Your task to perform on an android device: refresh tabs in the chrome app Image 0: 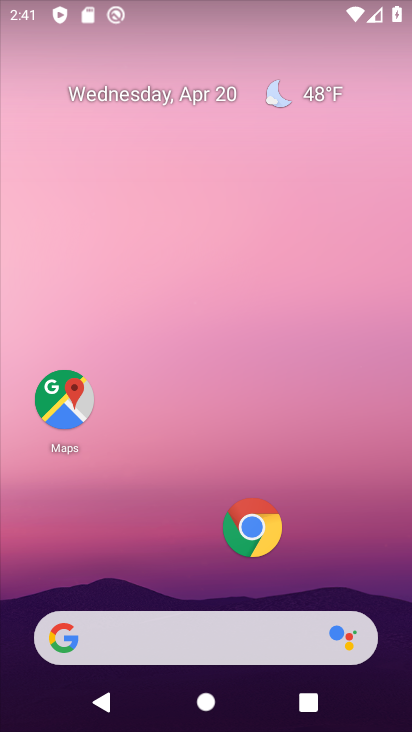
Step 0: click (251, 529)
Your task to perform on an android device: refresh tabs in the chrome app Image 1: 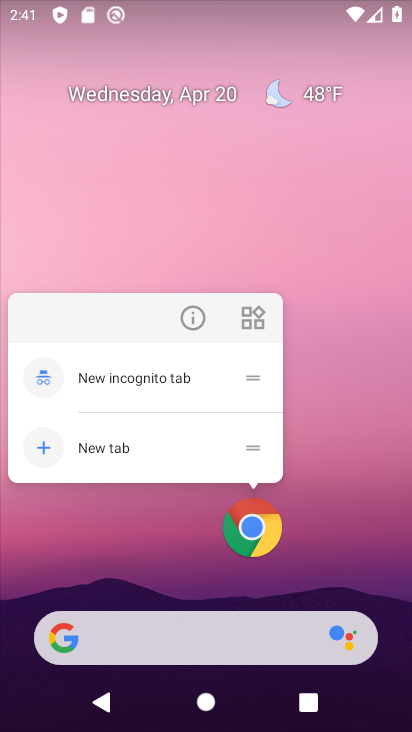
Step 1: click (110, 450)
Your task to perform on an android device: refresh tabs in the chrome app Image 2: 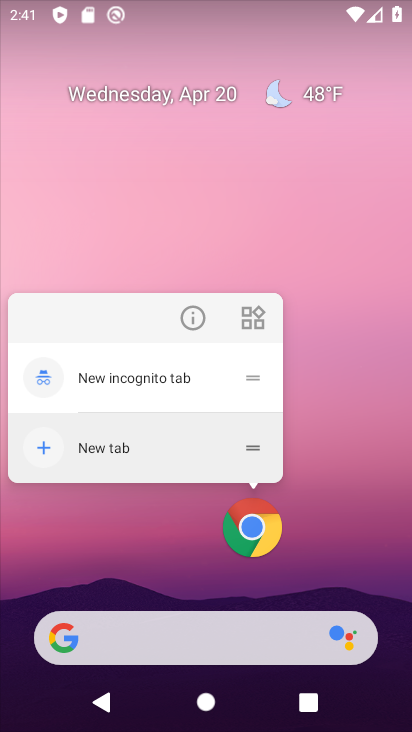
Step 2: click (110, 450)
Your task to perform on an android device: refresh tabs in the chrome app Image 3: 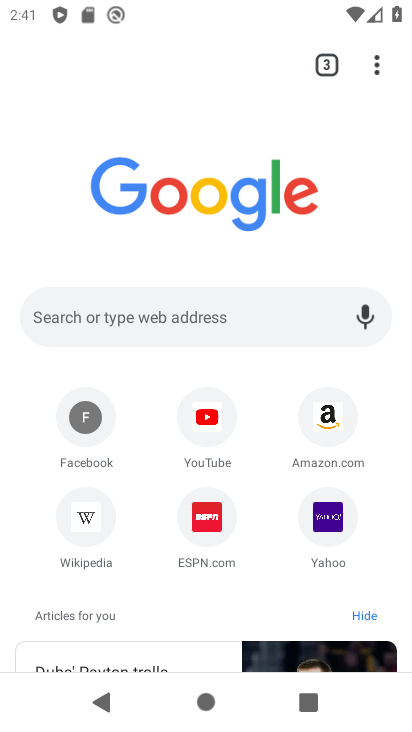
Step 3: click (376, 59)
Your task to perform on an android device: refresh tabs in the chrome app Image 4: 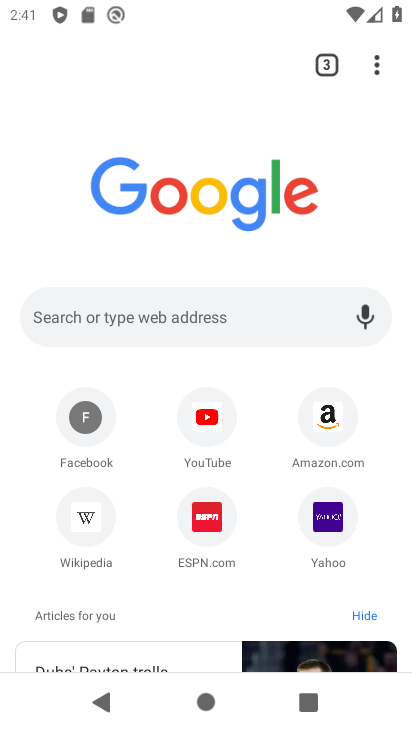
Step 4: click (375, 66)
Your task to perform on an android device: refresh tabs in the chrome app Image 5: 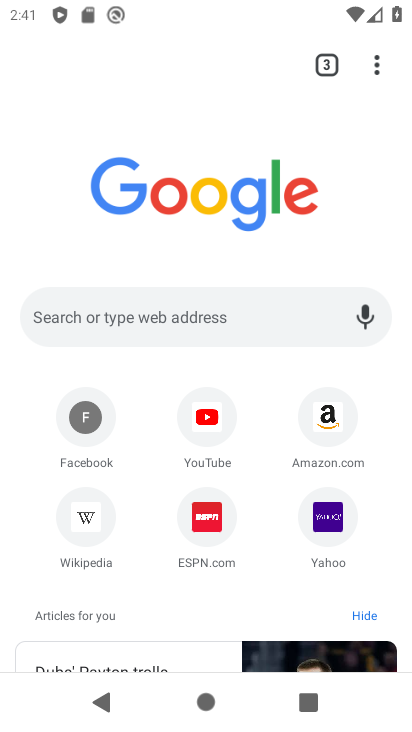
Step 5: click (375, 66)
Your task to perform on an android device: refresh tabs in the chrome app Image 6: 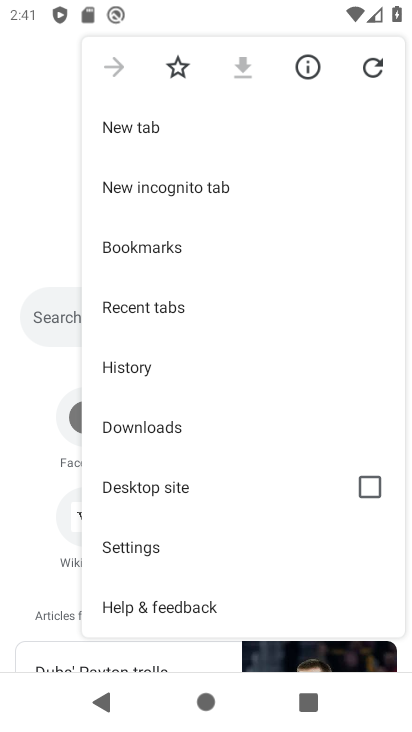
Step 6: click (359, 76)
Your task to perform on an android device: refresh tabs in the chrome app Image 7: 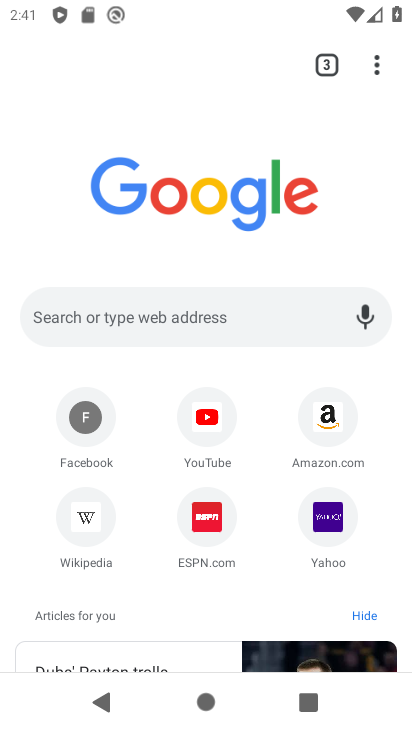
Step 7: task complete